Your task to perform on an android device: Go to ESPN.com Image 0: 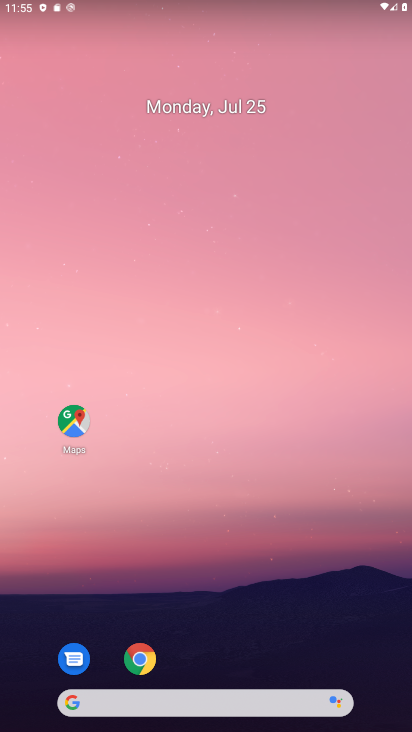
Step 0: press home button
Your task to perform on an android device: Go to ESPN.com Image 1: 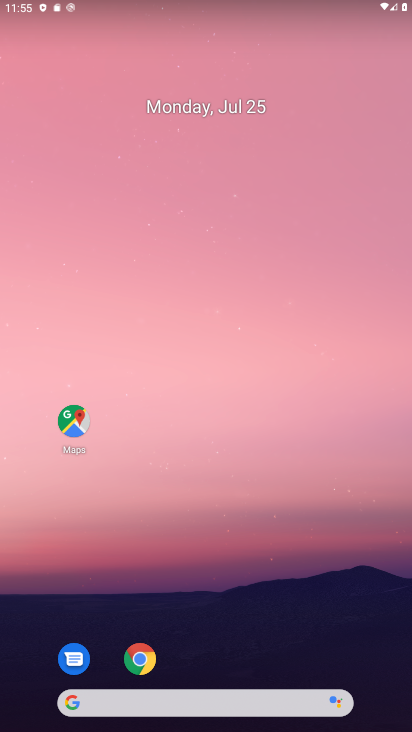
Step 1: click (144, 659)
Your task to perform on an android device: Go to ESPN.com Image 2: 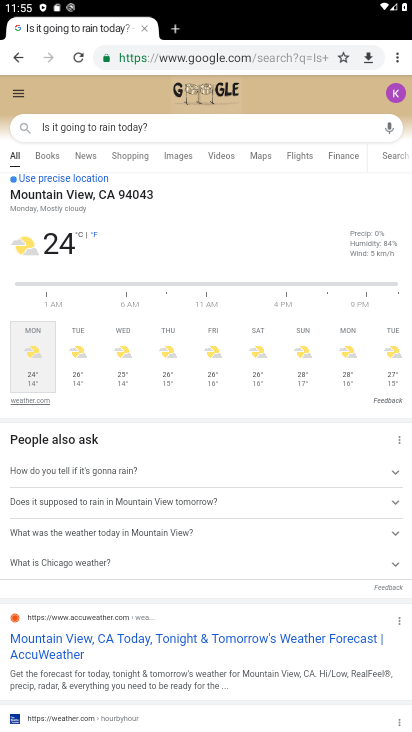
Step 2: click (231, 58)
Your task to perform on an android device: Go to ESPN.com Image 3: 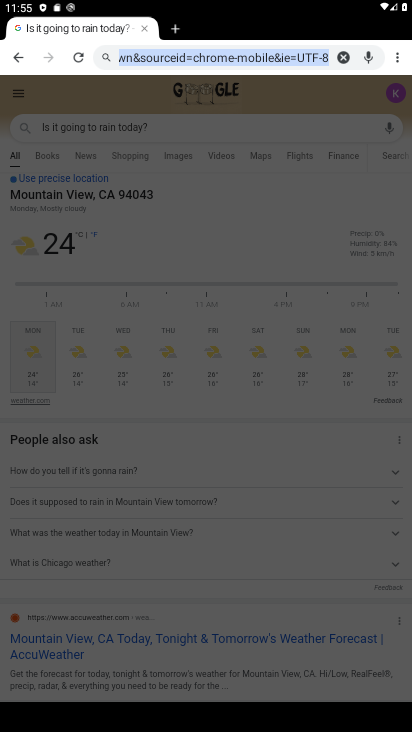
Step 3: type "ESPN.com"
Your task to perform on an android device: Go to ESPN.com Image 4: 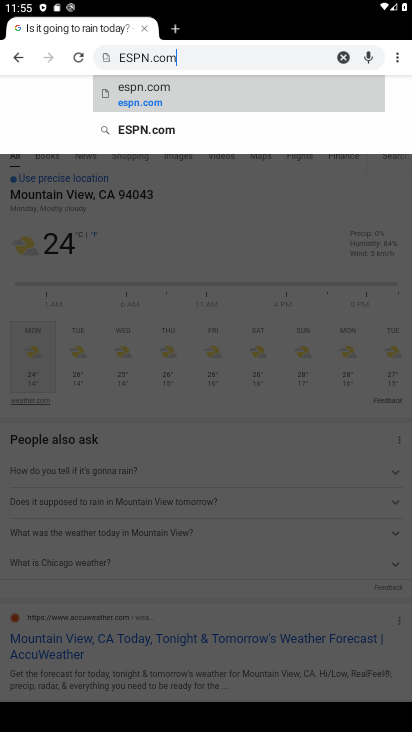
Step 4: type ""
Your task to perform on an android device: Go to ESPN.com Image 5: 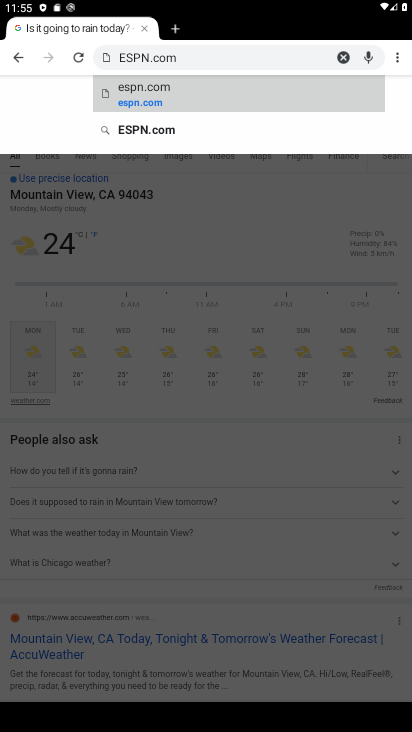
Step 5: click (123, 96)
Your task to perform on an android device: Go to ESPN.com Image 6: 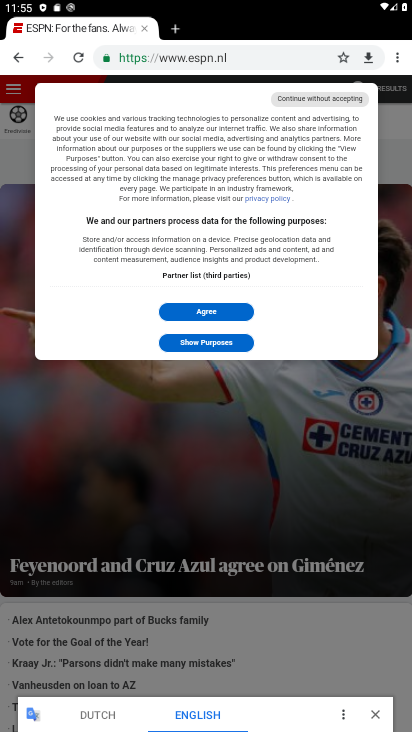
Step 6: task complete